Your task to perform on an android device: remove spam from my inbox in the gmail app Image 0: 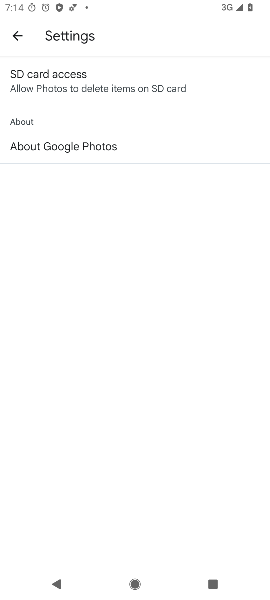
Step 0: press home button
Your task to perform on an android device: remove spam from my inbox in the gmail app Image 1: 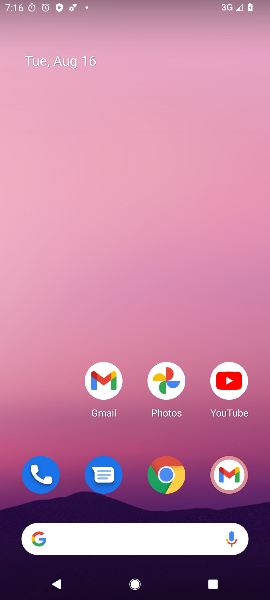
Step 1: drag from (199, 508) to (168, 3)
Your task to perform on an android device: remove spam from my inbox in the gmail app Image 2: 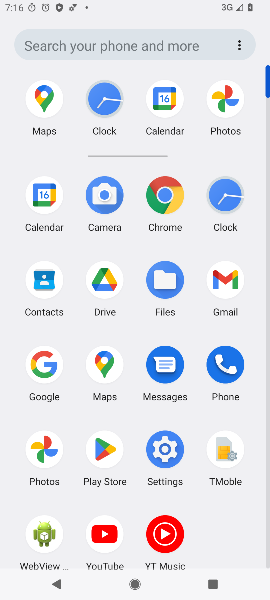
Step 2: click (221, 267)
Your task to perform on an android device: remove spam from my inbox in the gmail app Image 3: 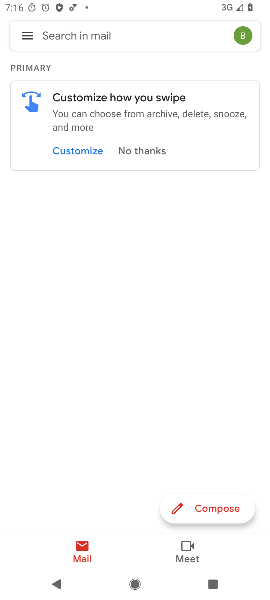
Step 3: task complete